Your task to perform on an android device: open wifi settings Image 0: 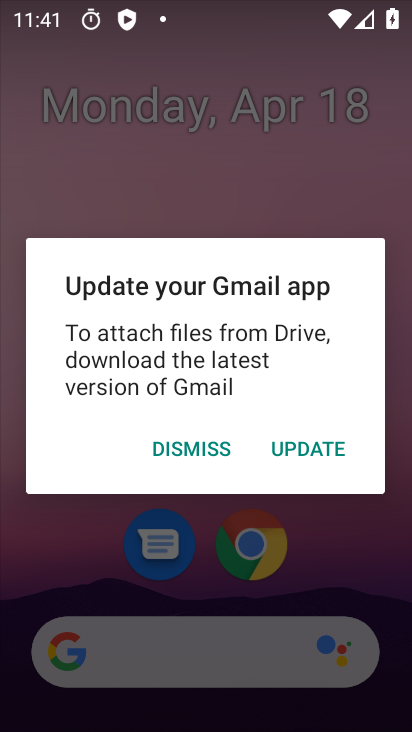
Step 0: press home button
Your task to perform on an android device: open wifi settings Image 1: 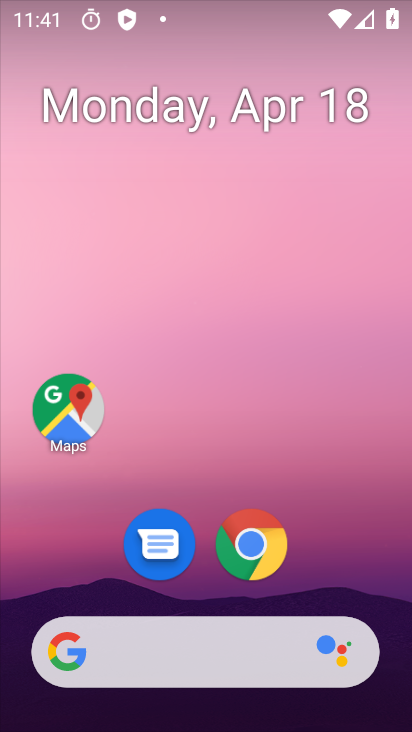
Step 1: drag from (351, 550) to (319, 1)
Your task to perform on an android device: open wifi settings Image 2: 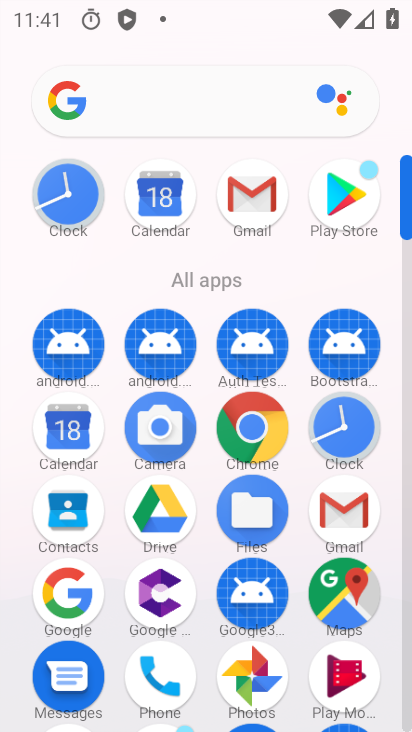
Step 2: click (407, 549)
Your task to perform on an android device: open wifi settings Image 3: 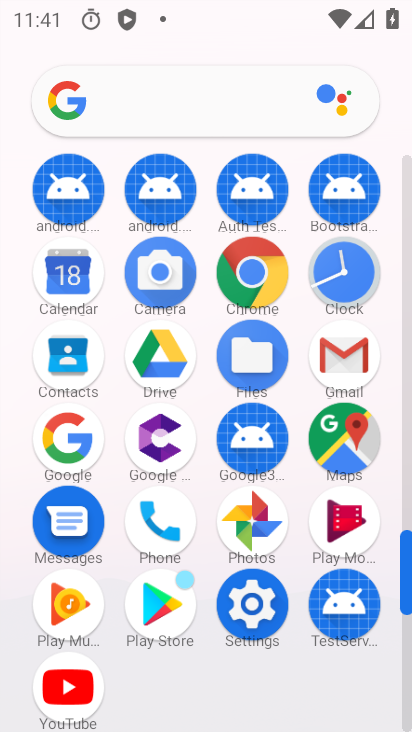
Step 3: click (253, 605)
Your task to perform on an android device: open wifi settings Image 4: 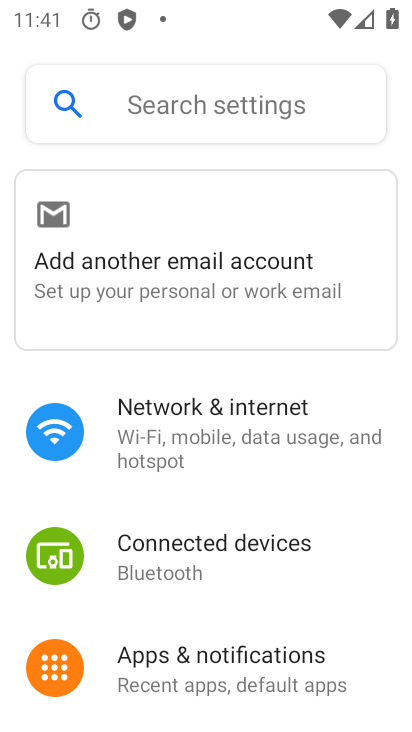
Step 4: click (191, 443)
Your task to perform on an android device: open wifi settings Image 5: 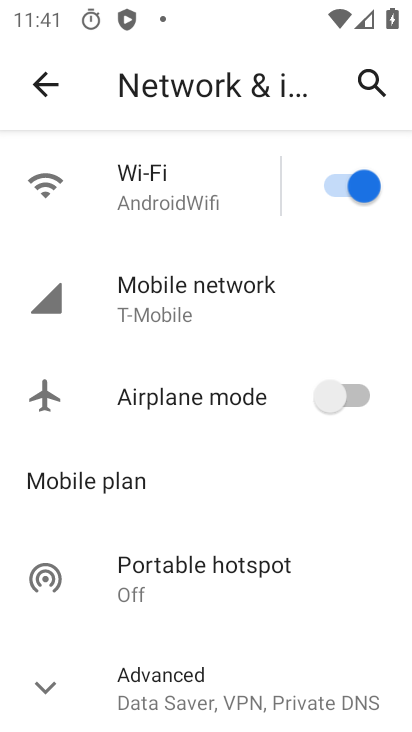
Step 5: click (146, 195)
Your task to perform on an android device: open wifi settings Image 6: 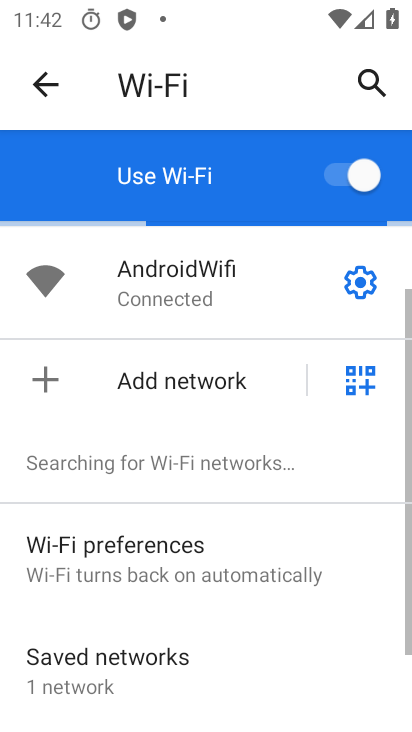
Step 6: task complete